Your task to perform on an android device: turn on the 12-hour format for clock Image 0: 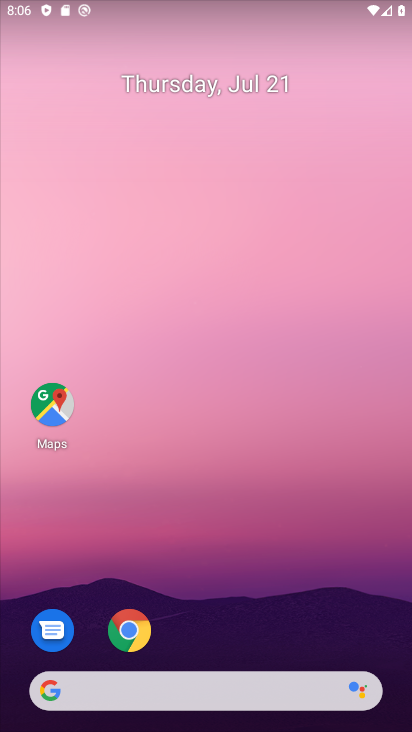
Step 0: drag from (279, 586) to (304, 6)
Your task to perform on an android device: turn on the 12-hour format for clock Image 1: 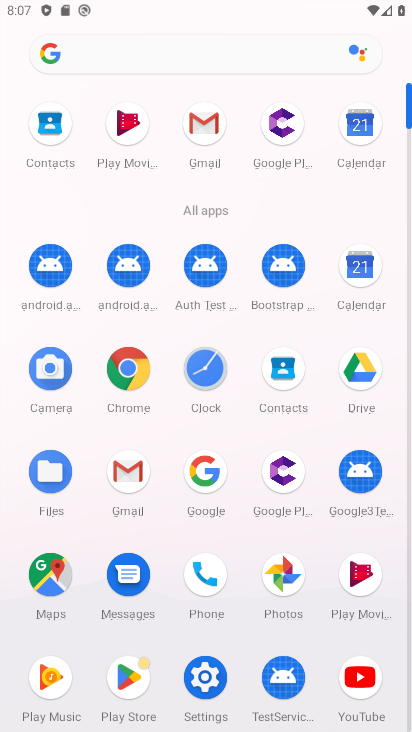
Step 1: click (205, 382)
Your task to perform on an android device: turn on the 12-hour format for clock Image 2: 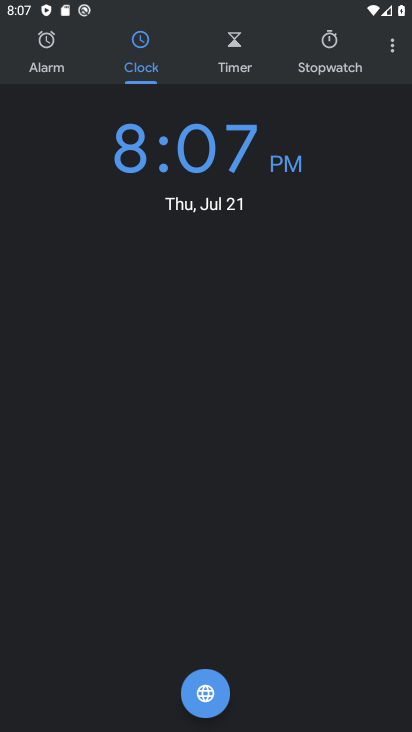
Step 2: click (394, 46)
Your task to perform on an android device: turn on the 12-hour format for clock Image 3: 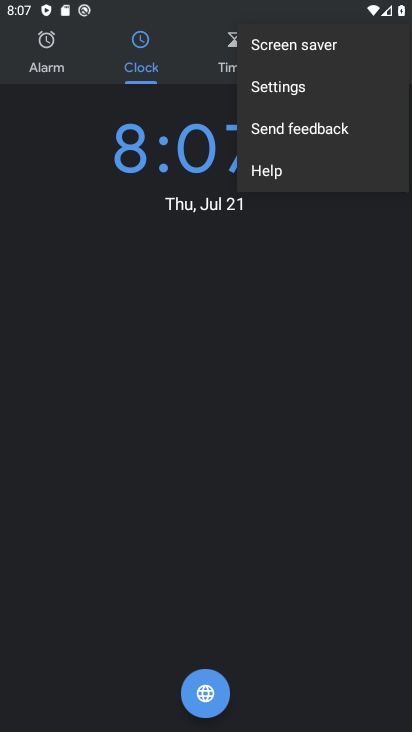
Step 3: click (308, 86)
Your task to perform on an android device: turn on the 12-hour format for clock Image 4: 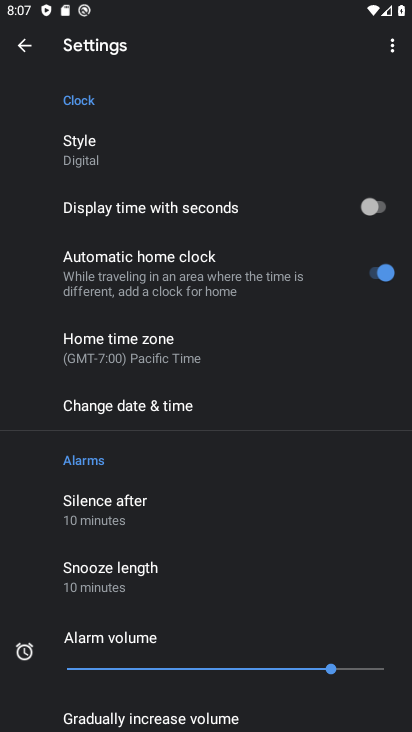
Step 4: click (217, 404)
Your task to perform on an android device: turn on the 12-hour format for clock Image 5: 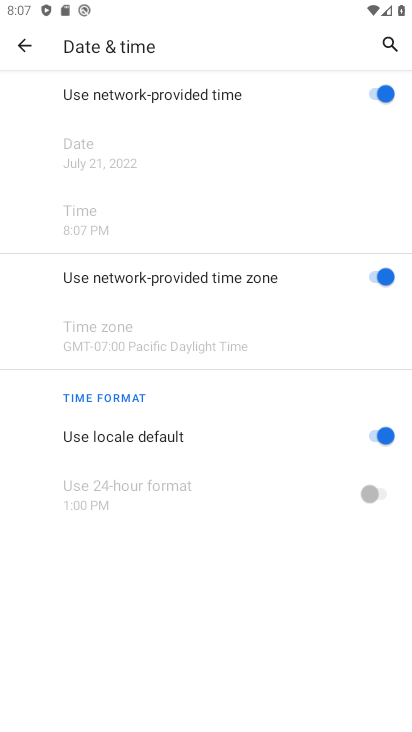
Step 5: task complete